Your task to perform on an android device: Go to Google maps Image 0: 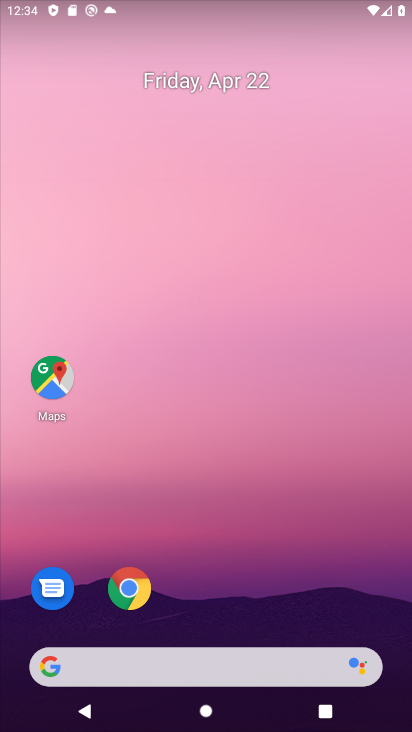
Step 0: drag from (275, 697) to (373, 98)
Your task to perform on an android device: Go to Google maps Image 1: 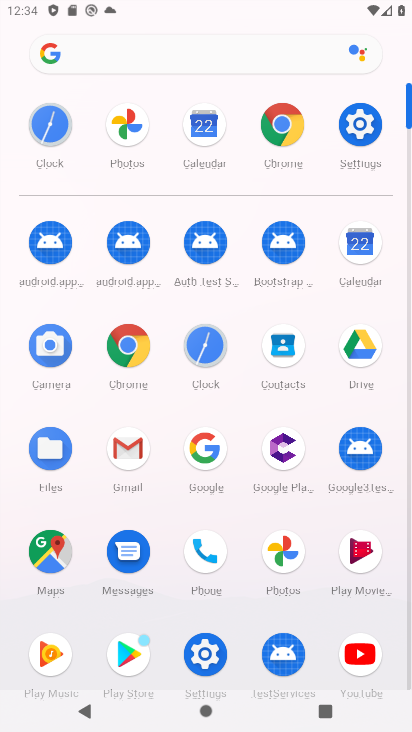
Step 1: click (52, 553)
Your task to perform on an android device: Go to Google maps Image 2: 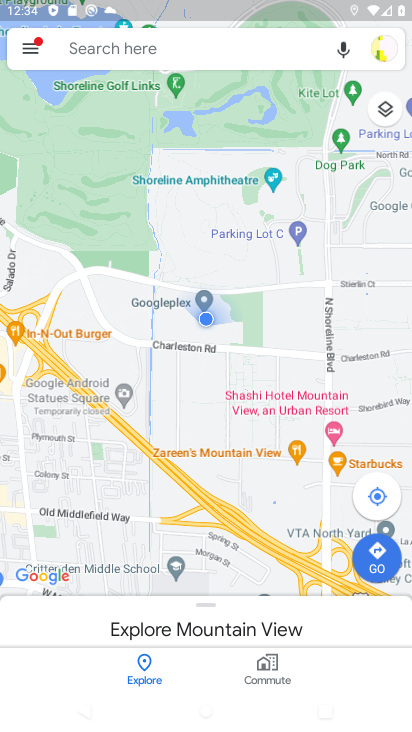
Step 2: click (364, 504)
Your task to perform on an android device: Go to Google maps Image 3: 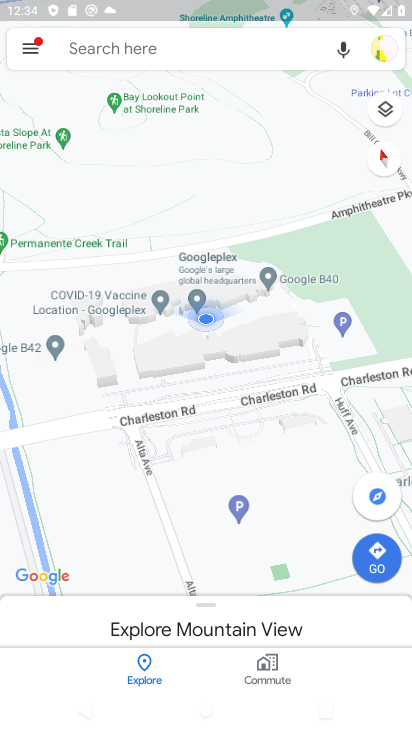
Step 3: task complete